Your task to perform on an android device: toggle notification dots Image 0: 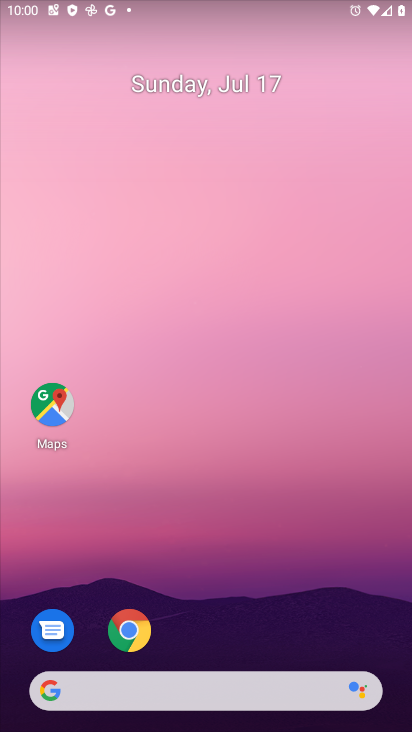
Step 0: drag from (181, 498) to (214, 163)
Your task to perform on an android device: toggle notification dots Image 1: 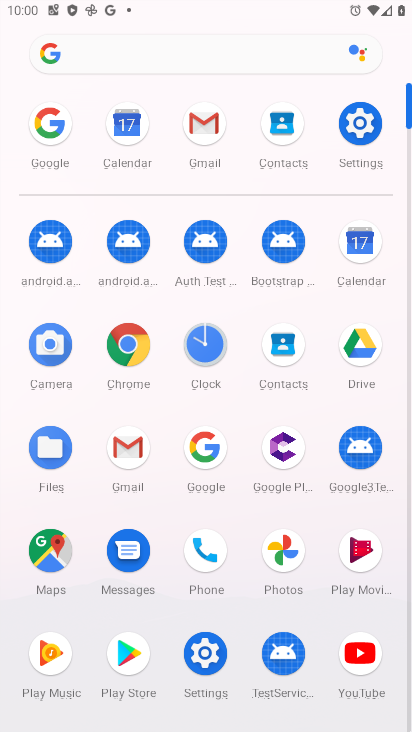
Step 1: click (356, 121)
Your task to perform on an android device: toggle notification dots Image 2: 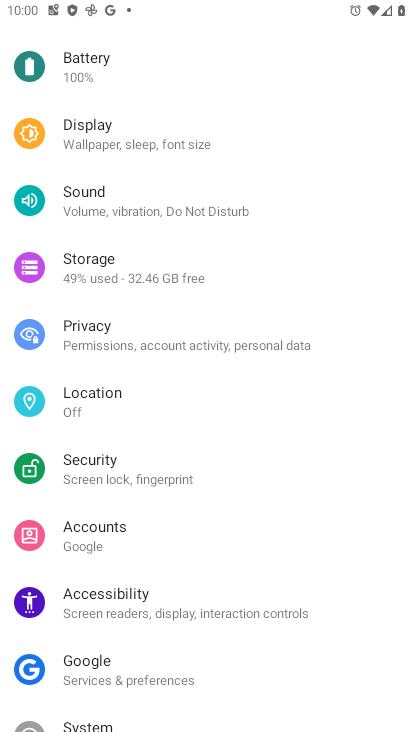
Step 2: drag from (197, 258) to (121, 510)
Your task to perform on an android device: toggle notification dots Image 3: 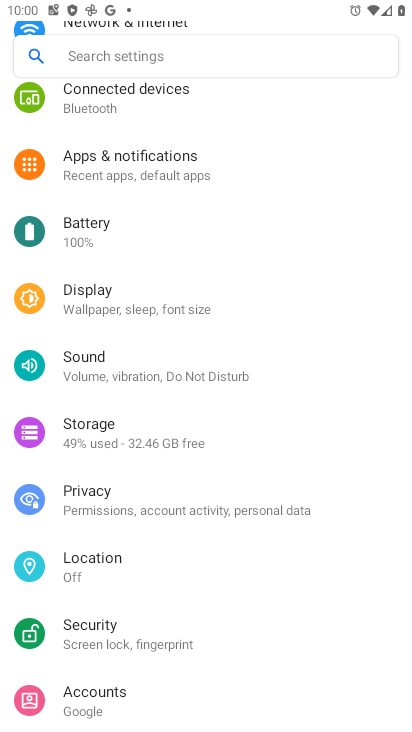
Step 3: click (159, 168)
Your task to perform on an android device: toggle notification dots Image 4: 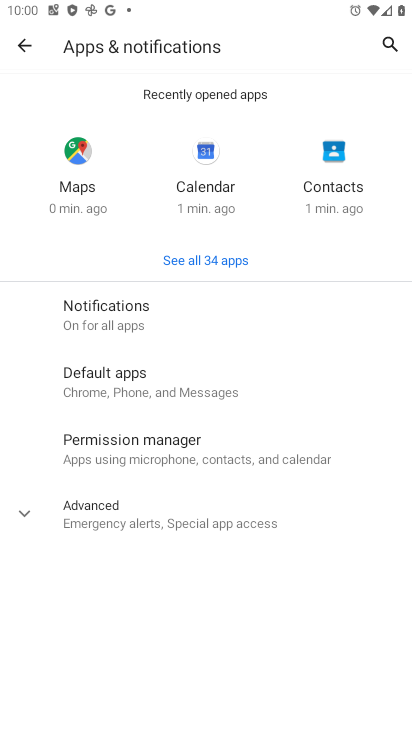
Step 4: click (97, 317)
Your task to perform on an android device: toggle notification dots Image 5: 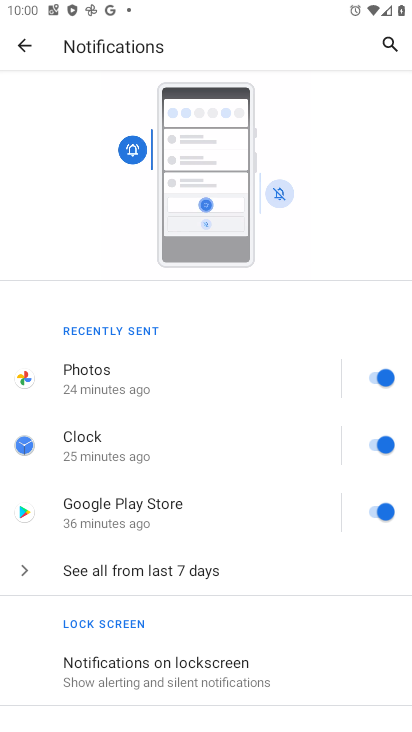
Step 5: drag from (182, 640) to (214, 393)
Your task to perform on an android device: toggle notification dots Image 6: 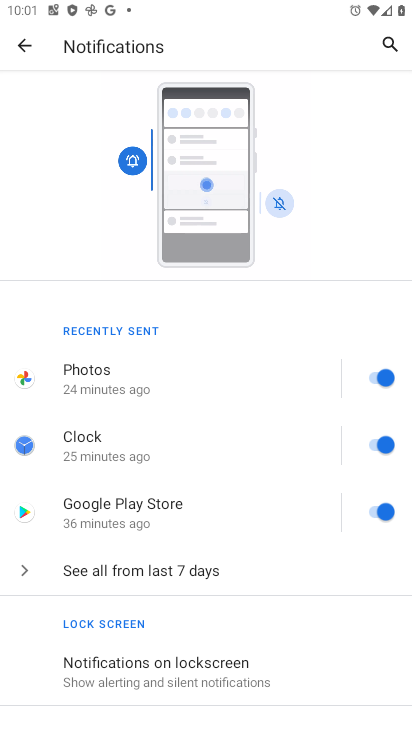
Step 6: drag from (199, 576) to (232, 344)
Your task to perform on an android device: toggle notification dots Image 7: 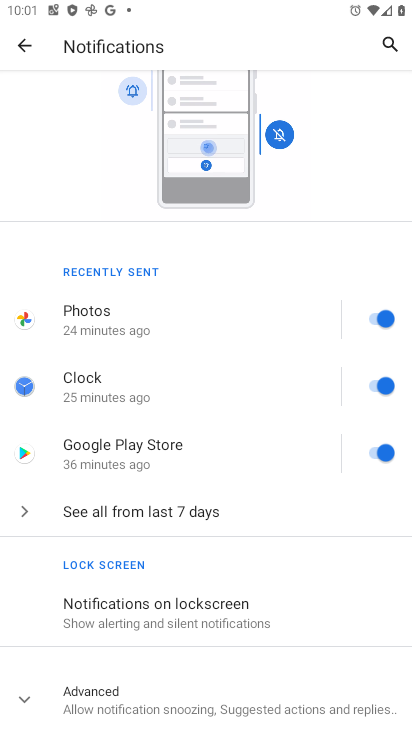
Step 7: drag from (151, 646) to (199, 369)
Your task to perform on an android device: toggle notification dots Image 8: 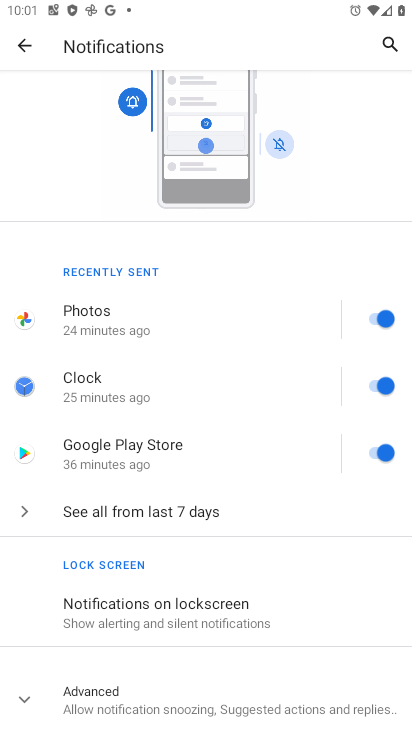
Step 8: click (94, 690)
Your task to perform on an android device: toggle notification dots Image 9: 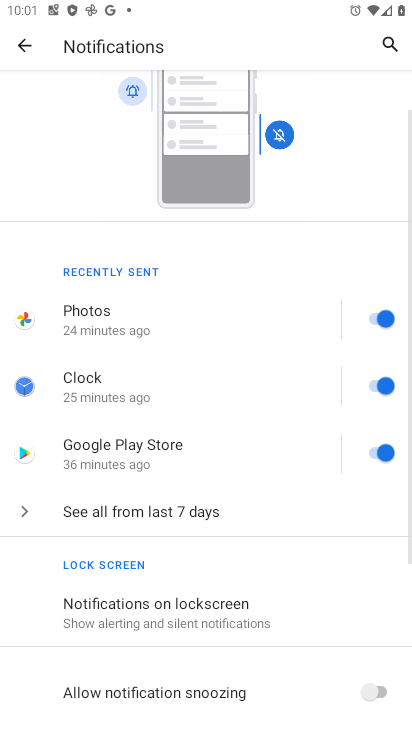
Step 9: drag from (124, 674) to (152, 403)
Your task to perform on an android device: toggle notification dots Image 10: 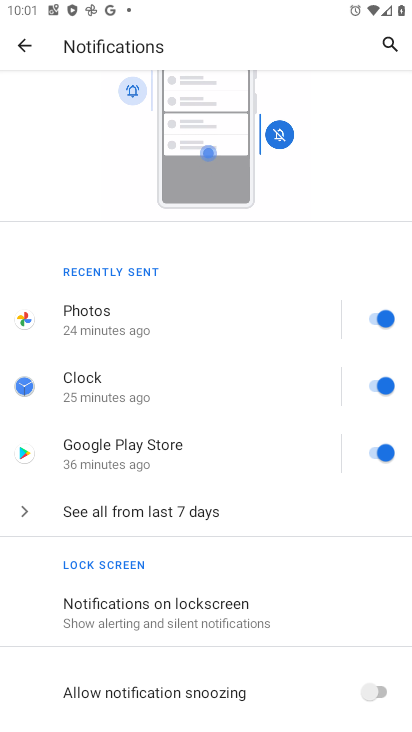
Step 10: drag from (290, 383) to (315, 182)
Your task to perform on an android device: toggle notification dots Image 11: 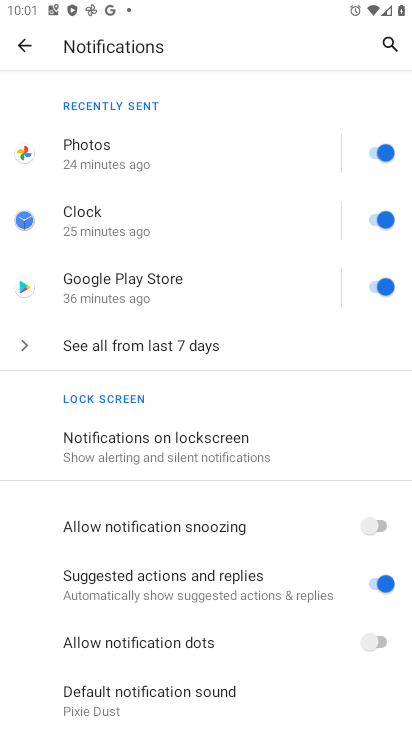
Step 11: click (376, 636)
Your task to perform on an android device: toggle notification dots Image 12: 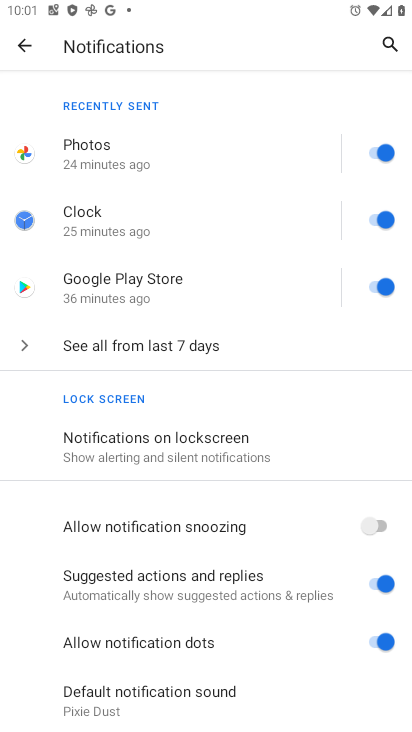
Step 12: task complete